Your task to perform on an android device: change your default location settings in chrome Image 0: 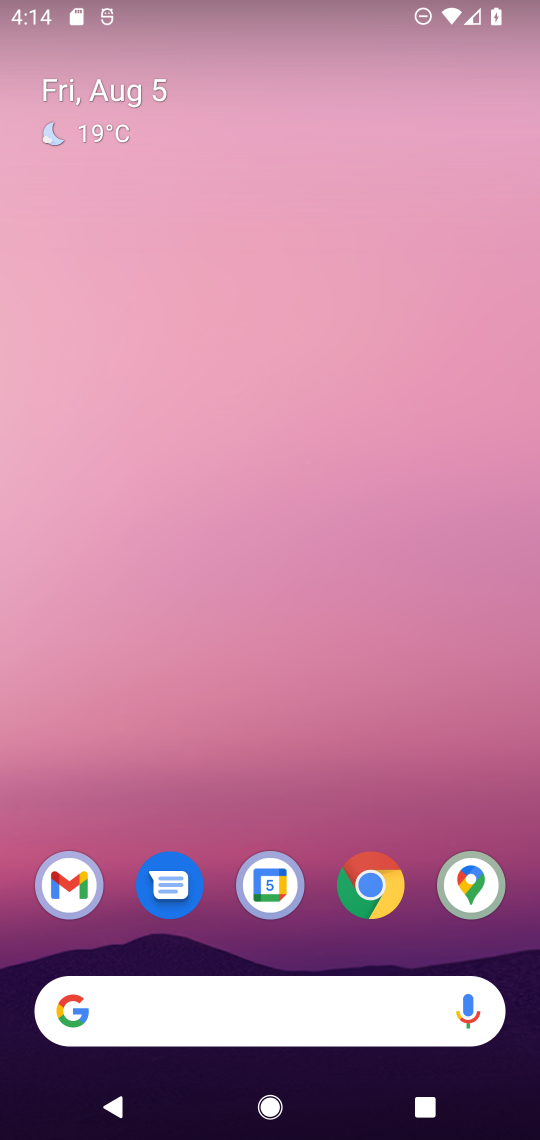
Step 0: click (388, 884)
Your task to perform on an android device: change your default location settings in chrome Image 1: 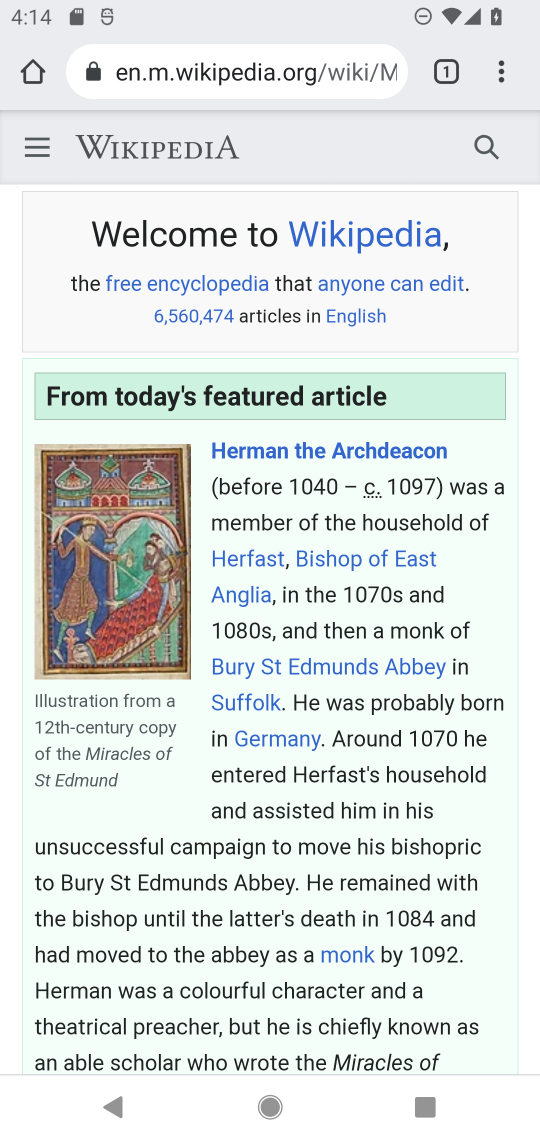
Step 1: click (502, 81)
Your task to perform on an android device: change your default location settings in chrome Image 2: 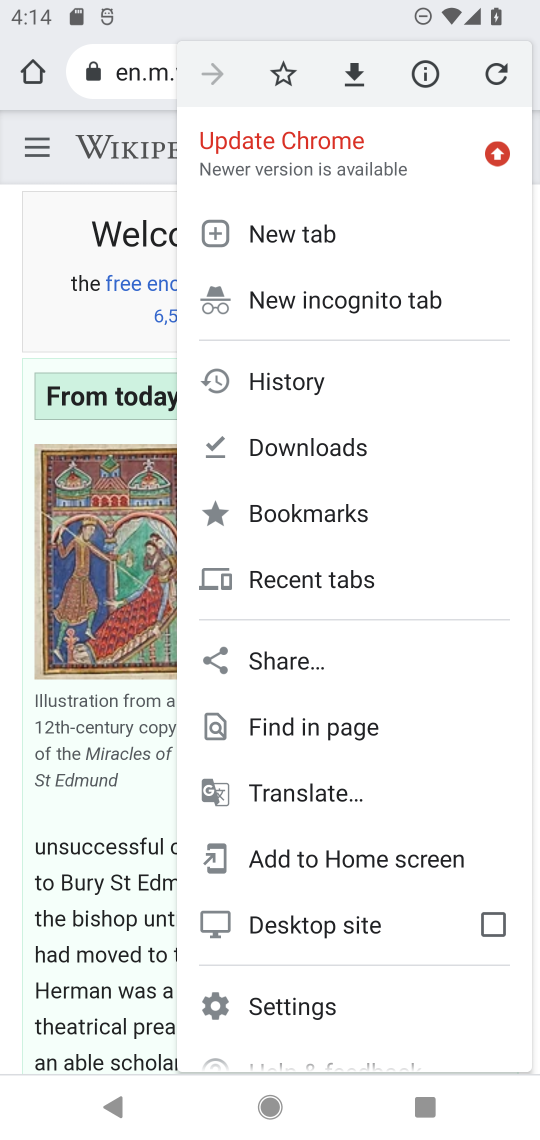
Step 2: click (266, 1007)
Your task to perform on an android device: change your default location settings in chrome Image 3: 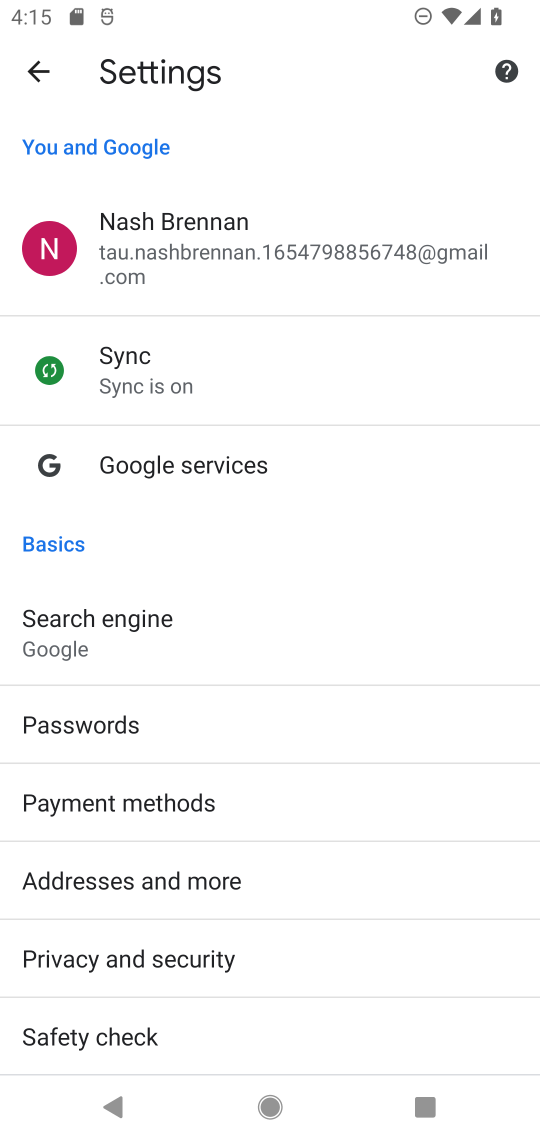
Step 3: drag from (70, 965) to (64, 721)
Your task to perform on an android device: change your default location settings in chrome Image 4: 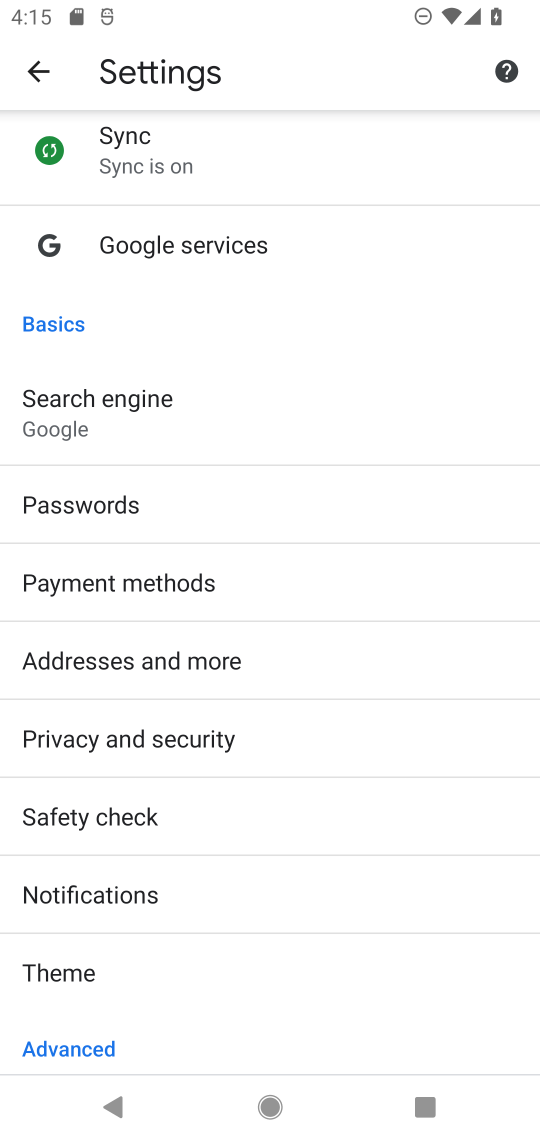
Step 4: drag from (175, 953) to (169, 569)
Your task to perform on an android device: change your default location settings in chrome Image 5: 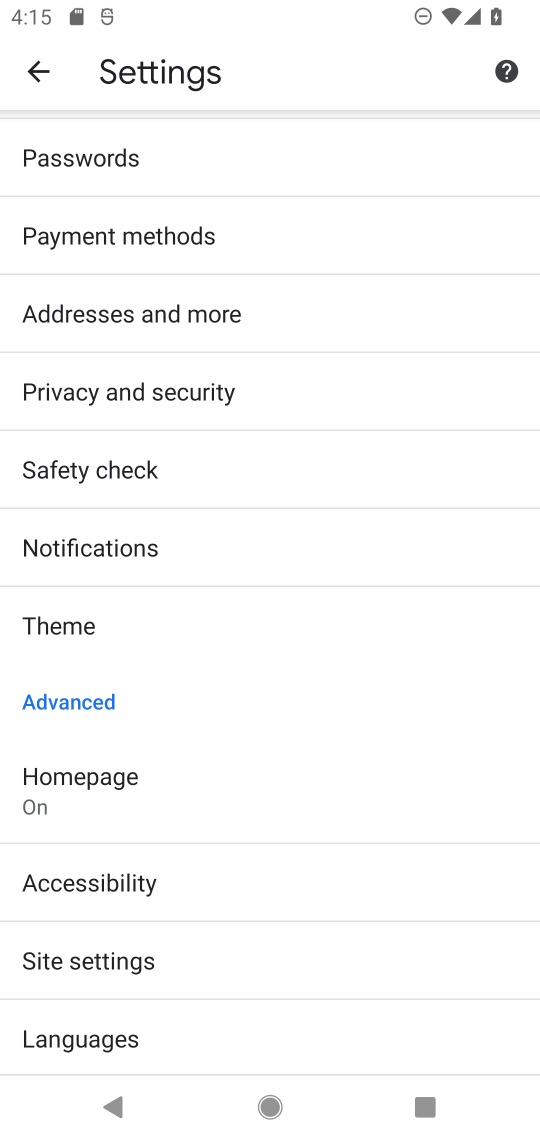
Step 5: click (88, 959)
Your task to perform on an android device: change your default location settings in chrome Image 6: 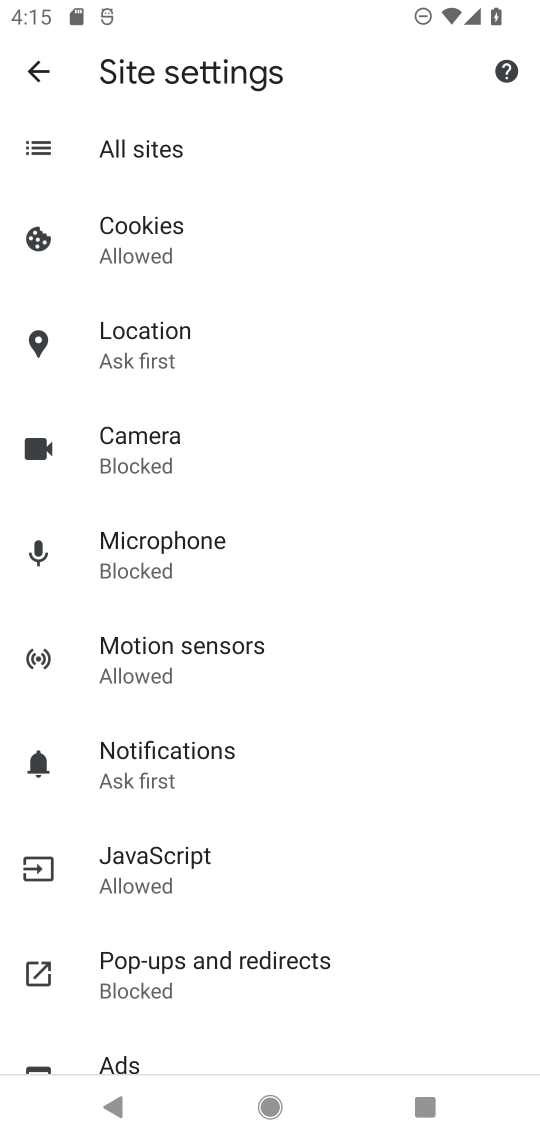
Step 6: click (147, 349)
Your task to perform on an android device: change your default location settings in chrome Image 7: 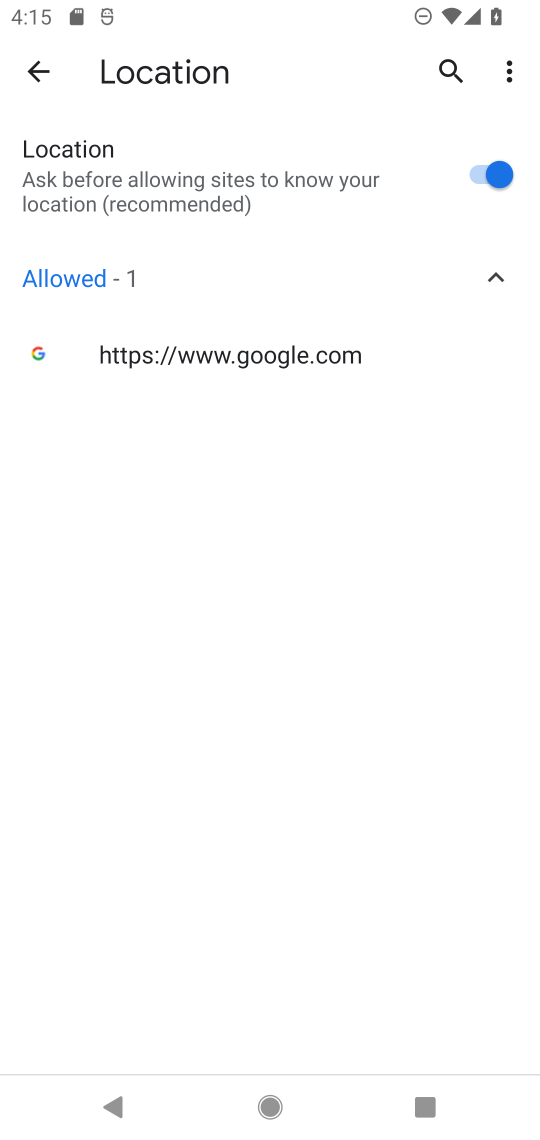
Step 7: click (492, 177)
Your task to perform on an android device: change your default location settings in chrome Image 8: 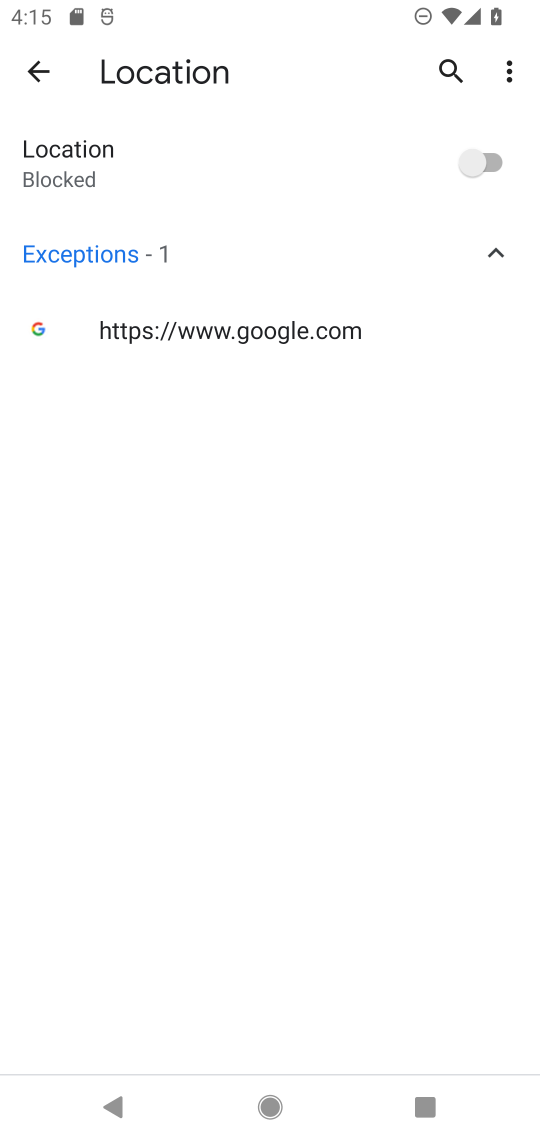
Step 8: task complete